Your task to perform on an android device: add a contact in the contacts app Image 0: 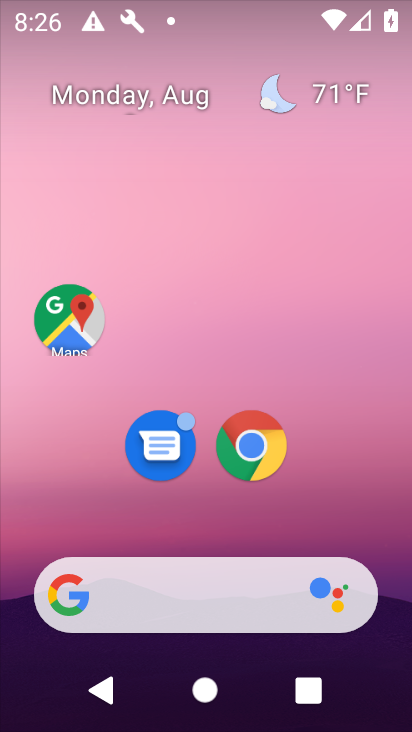
Step 0: click (212, 224)
Your task to perform on an android device: add a contact in the contacts app Image 1: 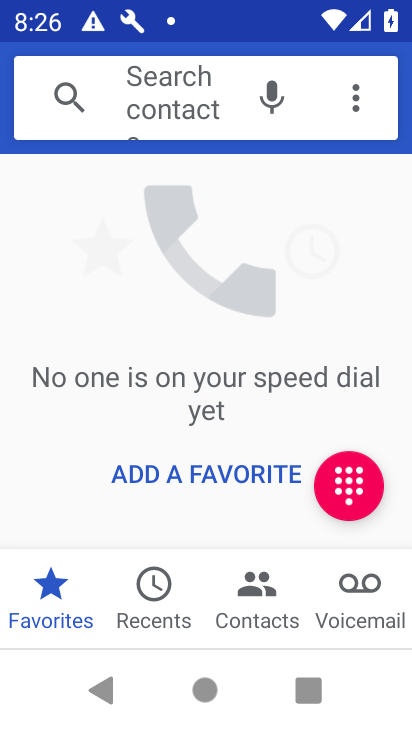
Step 1: drag from (234, 560) to (205, 425)
Your task to perform on an android device: add a contact in the contacts app Image 2: 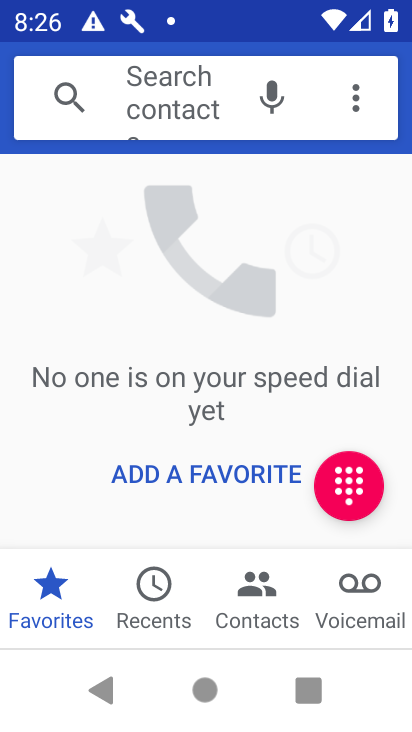
Step 2: press back button
Your task to perform on an android device: add a contact in the contacts app Image 3: 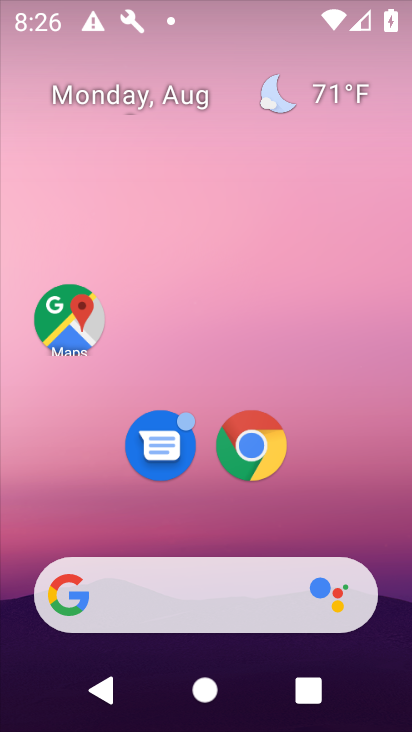
Step 3: drag from (254, 575) to (206, 234)
Your task to perform on an android device: add a contact in the contacts app Image 4: 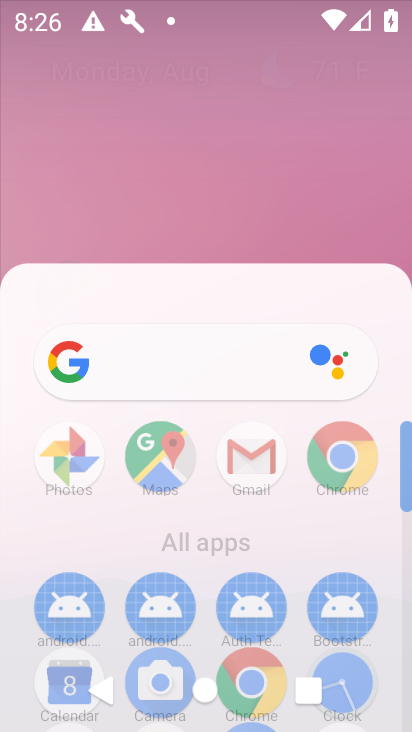
Step 4: drag from (214, 573) to (158, 341)
Your task to perform on an android device: add a contact in the contacts app Image 5: 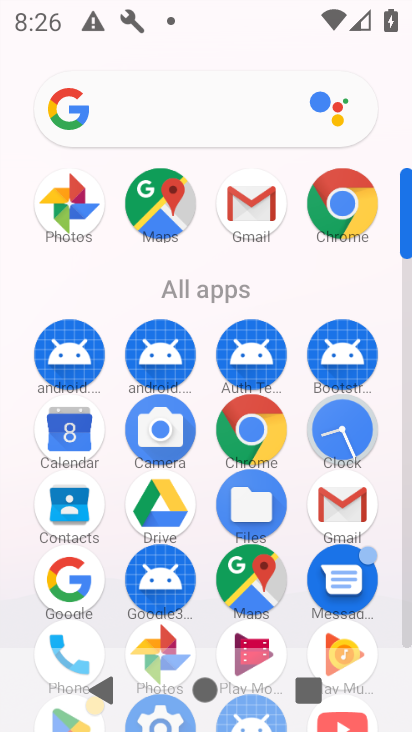
Step 5: click (63, 512)
Your task to perform on an android device: add a contact in the contacts app Image 6: 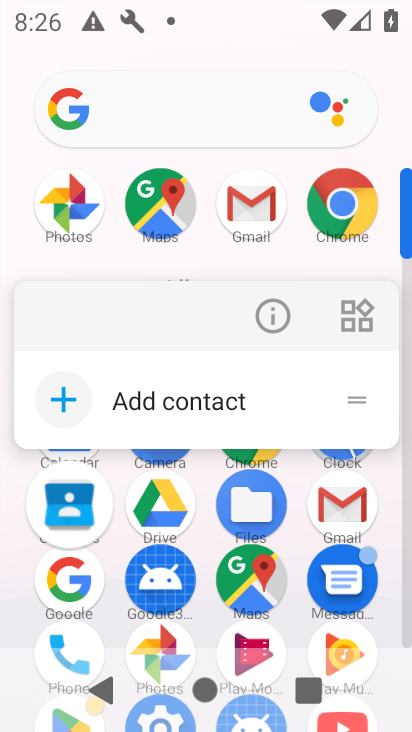
Step 6: click (73, 508)
Your task to perform on an android device: add a contact in the contacts app Image 7: 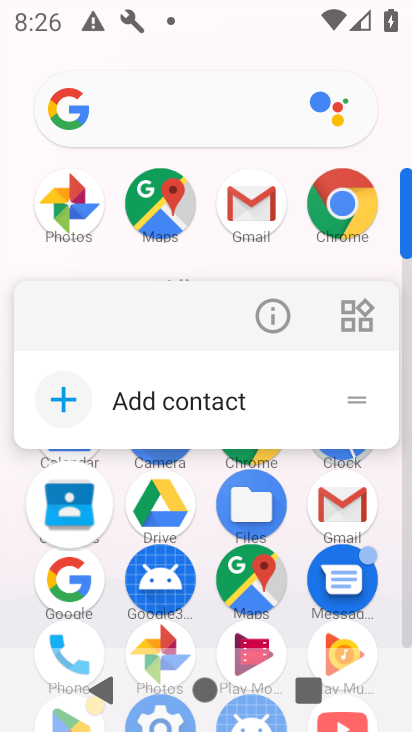
Step 7: click (72, 510)
Your task to perform on an android device: add a contact in the contacts app Image 8: 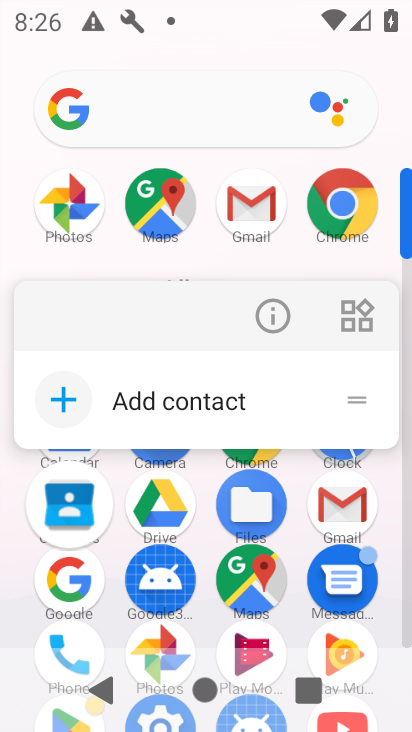
Step 8: click (72, 510)
Your task to perform on an android device: add a contact in the contacts app Image 9: 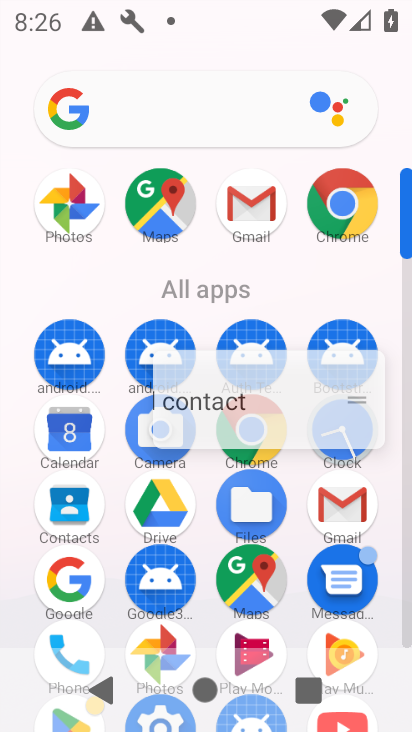
Step 9: click (149, 398)
Your task to perform on an android device: add a contact in the contacts app Image 10: 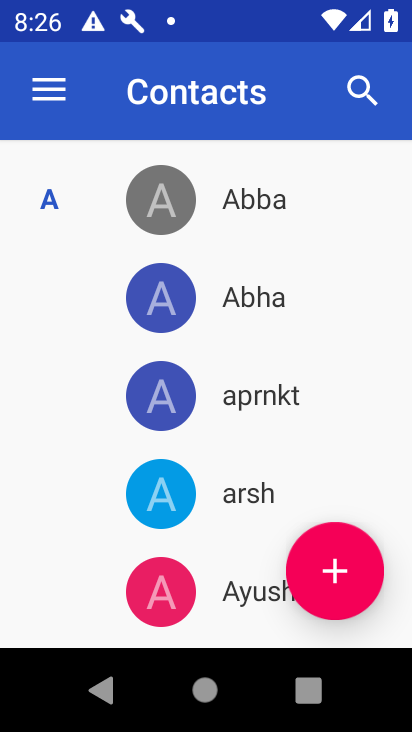
Step 10: click (336, 579)
Your task to perform on an android device: add a contact in the contacts app Image 11: 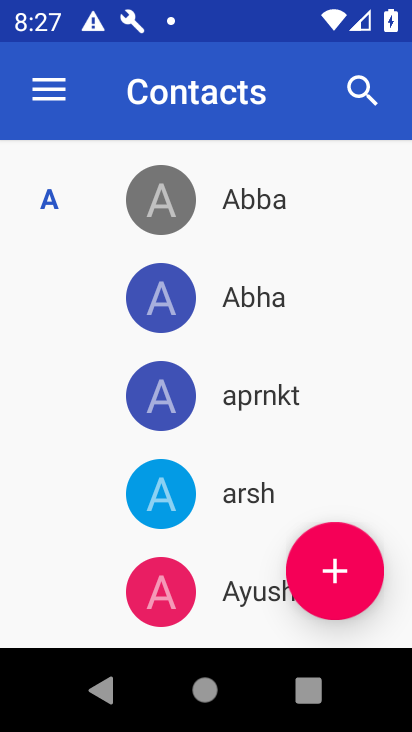
Step 11: click (335, 580)
Your task to perform on an android device: add a contact in the contacts app Image 12: 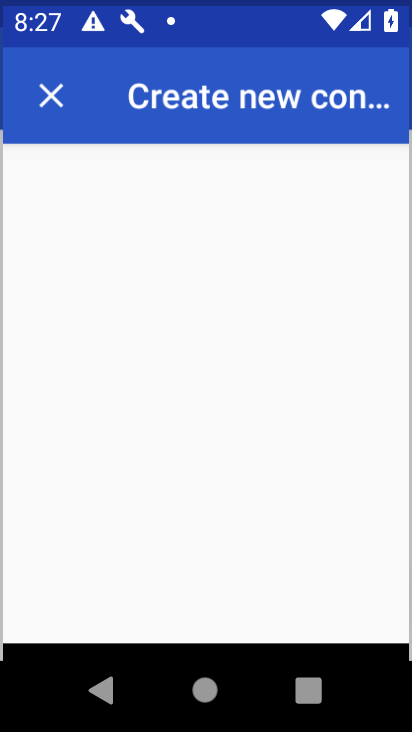
Step 12: click (335, 581)
Your task to perform on an android device: add a contact in the contacts app Image 13: 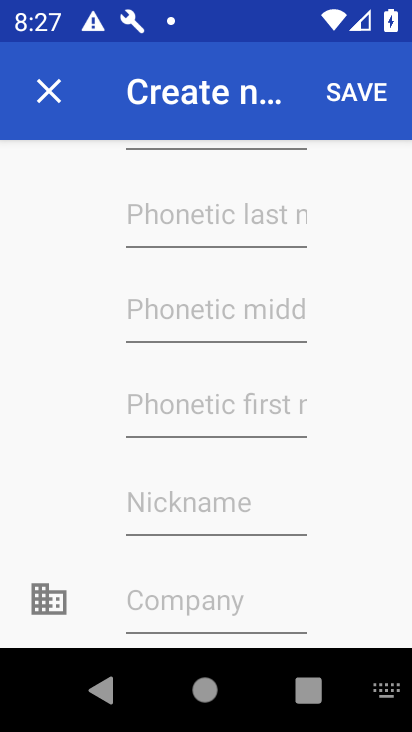
Step 13: drag from (179, 250) to (180, 515)
Your task to perform on an android device: add a contact in the contacts app Image 14: 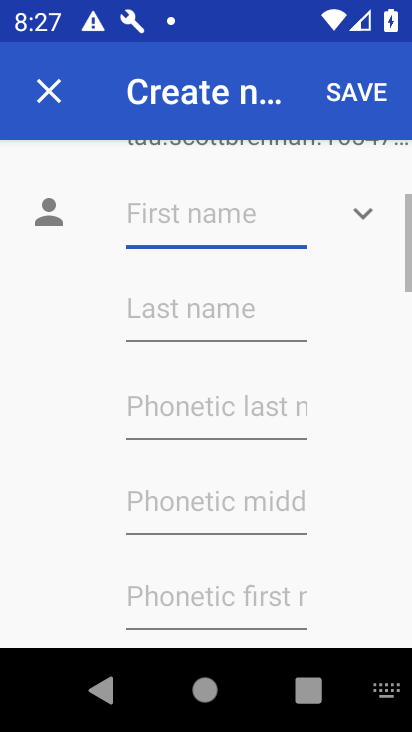
Step 14: drag from (193, 282) to (172, 537)
Your task to perform on an android device: add a contact in the contacts app Image 15: 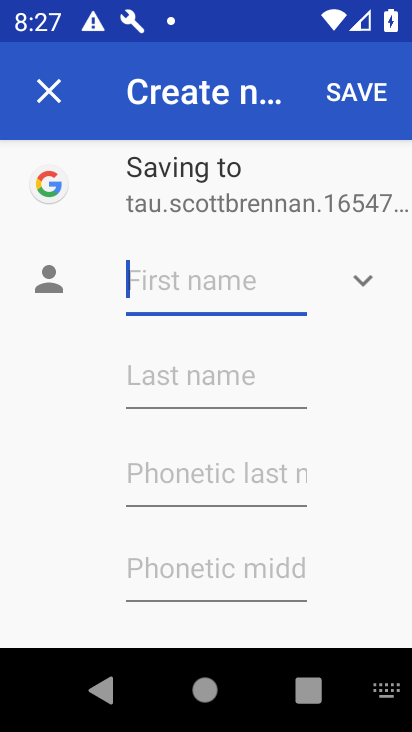
Step 15: type "gvhghgsdbchg"
Your task to perform on an android device: add a contact in the contacts app Image 16: 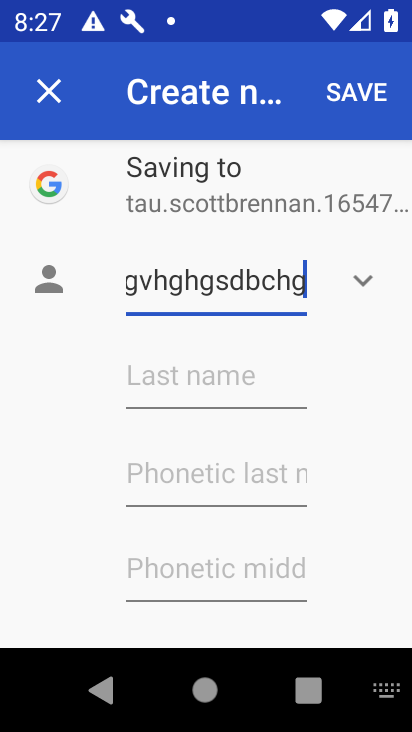
Step 16: drag from (175, 539) to (140, 365)
Your task to perform on an android device: add a contact in the contacts app Image 17: 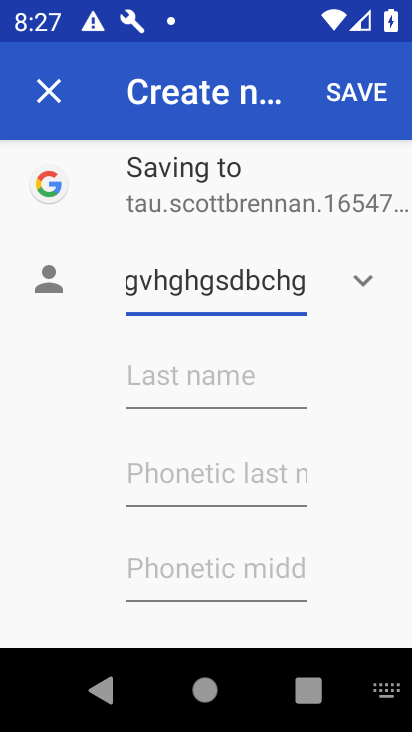
Step 17: drag from (137, 548) to (207, 159)
Your task to perform on an android device: add a contact in the contacts app Image 18: 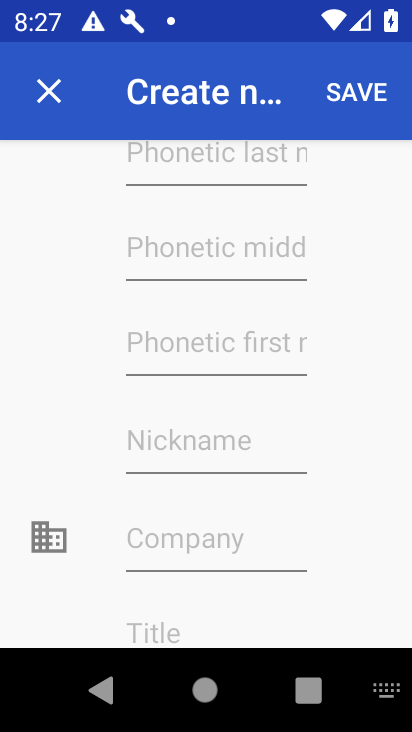
Step 18: drag from (209, 428) to (204, 283)
Your task to perform on an android device: add a contact in the contacts app Image 19: 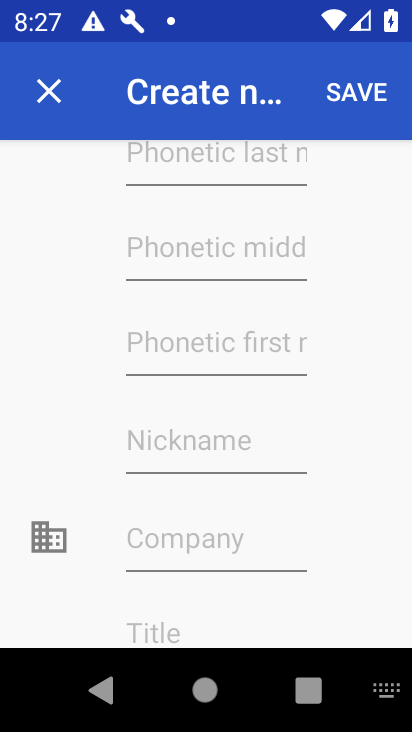
Step 19: drag from (190, 436) to (161, 369)
Your task to perform on an android device: add a contact in the contacts app Image 20: 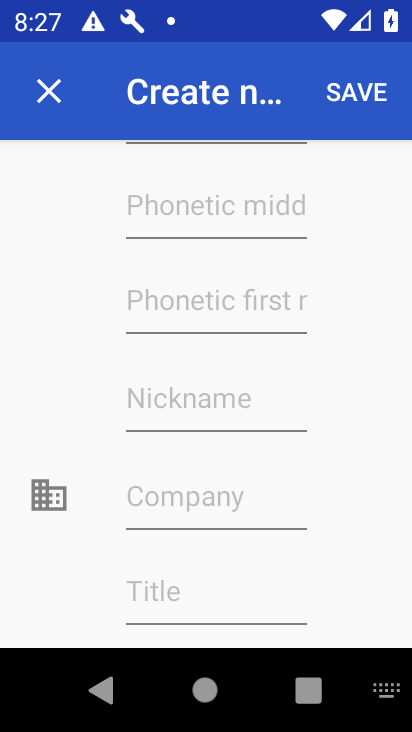
Step 20: drag from (160, 265) to (160, 618)
Your task to perform on an android device: add a contact in the contacts app Image 21: 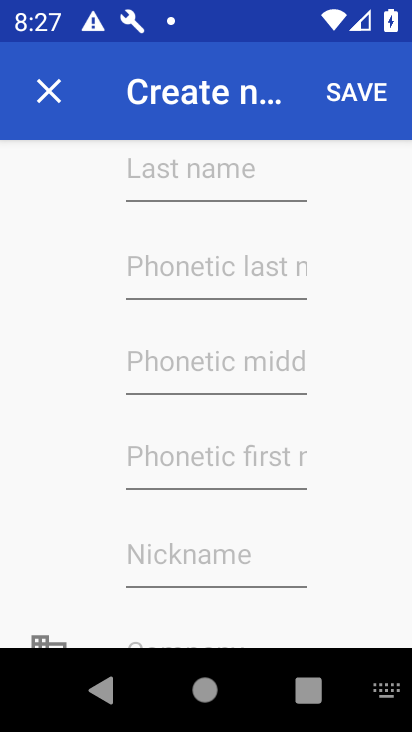
Step 21: drag from (169, 502) to (206, 249)
Your task to perform on an android device: add a contact in the contacts app Image 22: 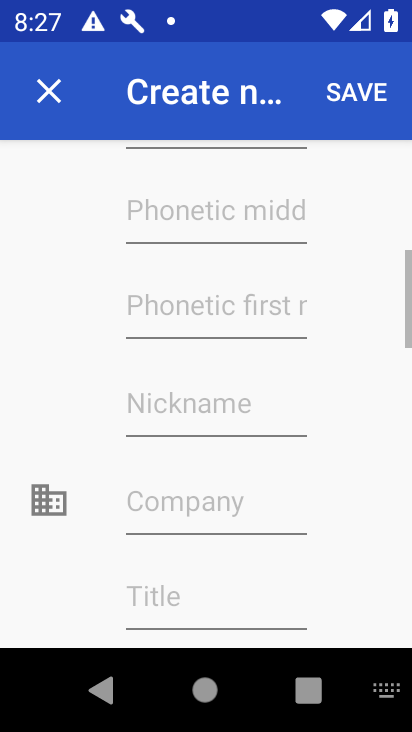
Step 22: drag from (258, 504) to (247, 320)
Your task to perform on an android device: add a contact in the contacts app Image 23: 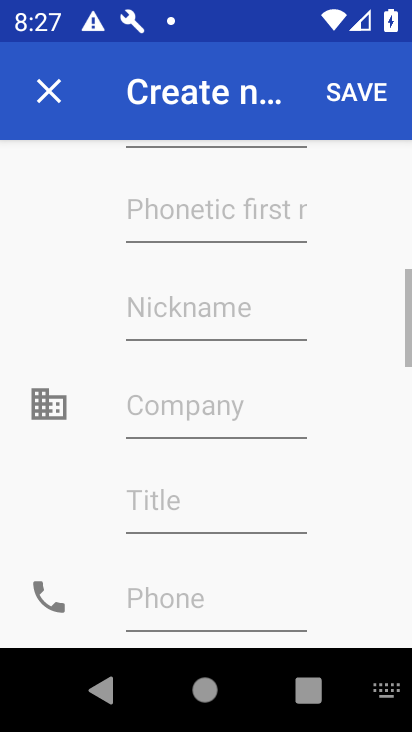
Step 23: drag from (250, 453) to (253, 294)
Your task to perform on an android device: add a contact in the contacts app Image 24: 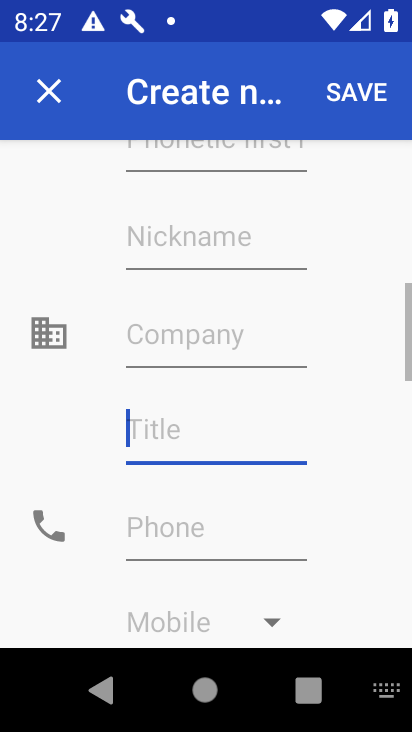
Step 24: drag from (231, 425) to (211, 269)
Your task to perform on an android device: add a contact in the contacts app Image 25: 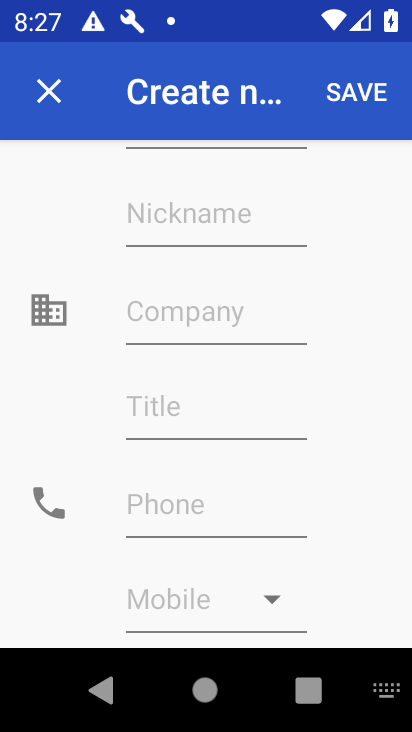
Step 25: click (152, 524)
Your task to perform on an android device: add a contact in the contacts app Image 26: 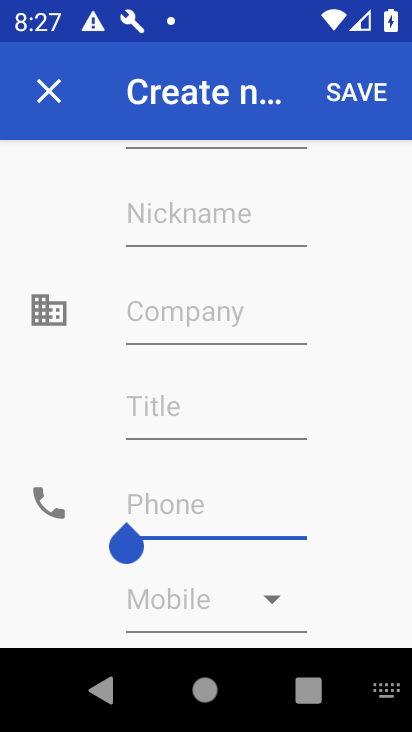
Step 26: click (158, 533)
Your task to perform on an android device: add a contact in the contacts app Image 27: 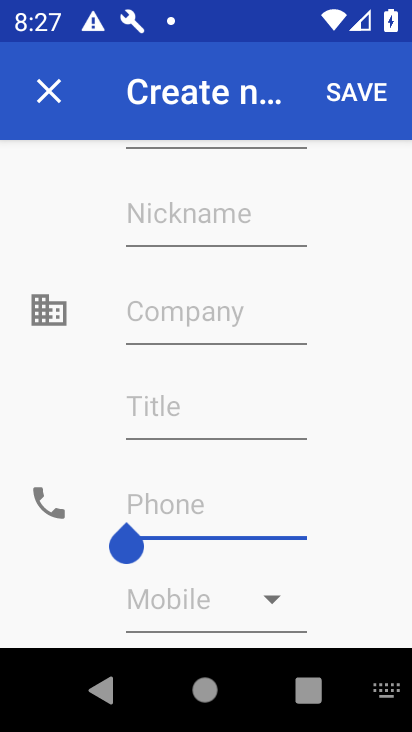
Step 27: type "7558747987498"
Your task to perform on an android device: add a contact in the contacts app Image 28: 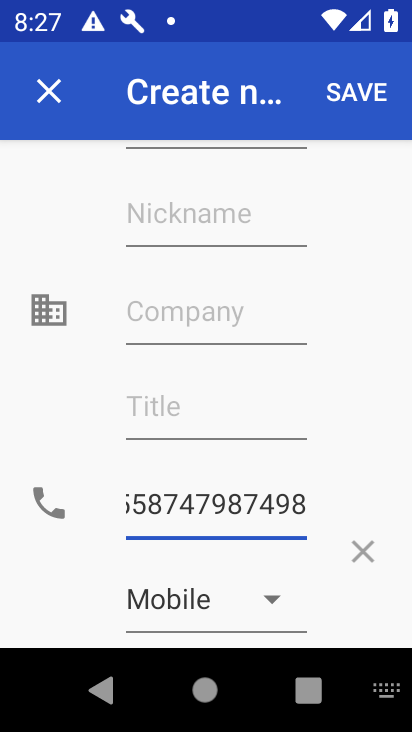
Step 28: click (360, 83)
Your task to perform on an android device: add a contact in the contacts app Image 29: 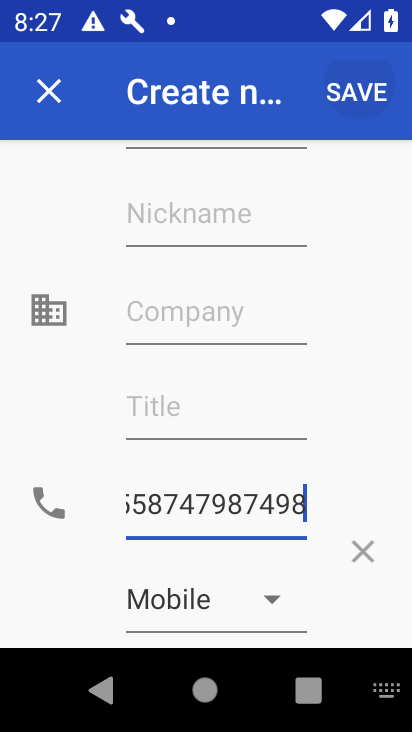
Step 29: click (360, 83)
Your task to perform on an android device: add a contact in the contacts app Image 30: 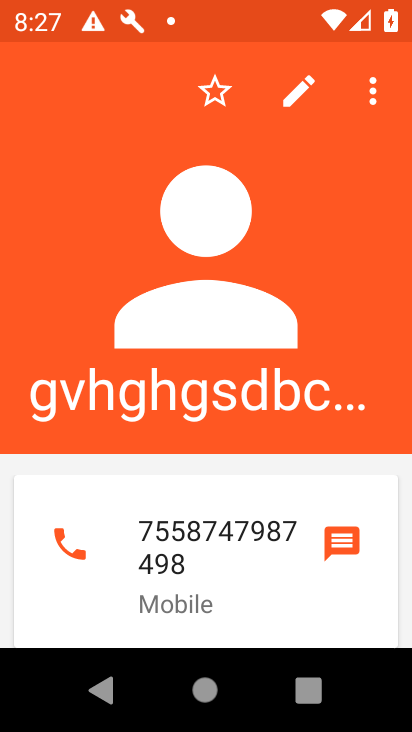
Step 30: task complete